Your task to perform on an android device: turn off priority inbox in the gmail app Image 0: 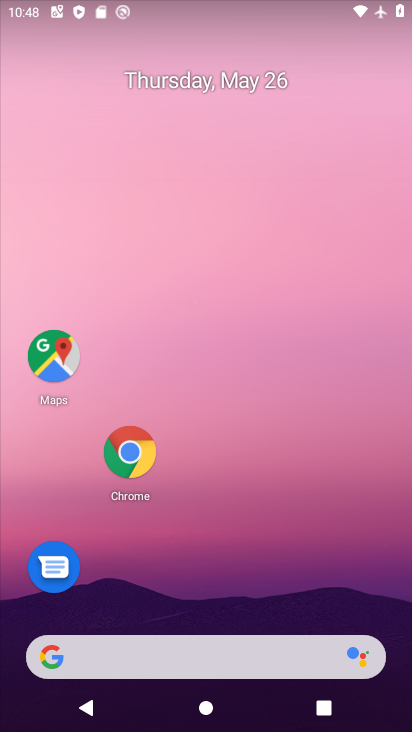
Step 0: drag from (142, 656) to (276, 99)
Your task to perform on an android device: turn off priority inbox in the gmail app Image 1: 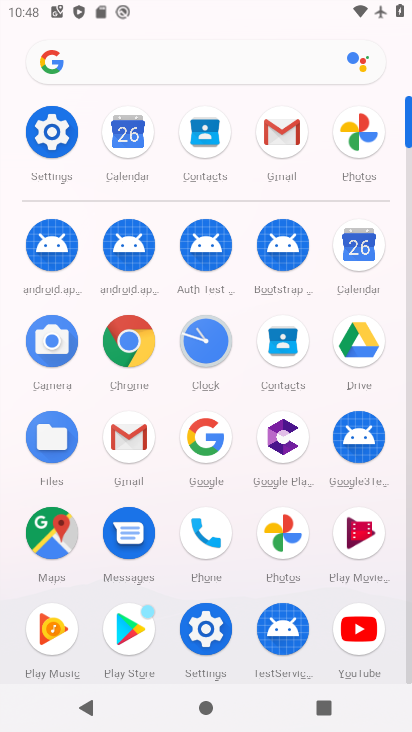
Step 1: click (124, 440)
Your task to perform on an android device: turn off priority inbox in the gmail app Image 2: 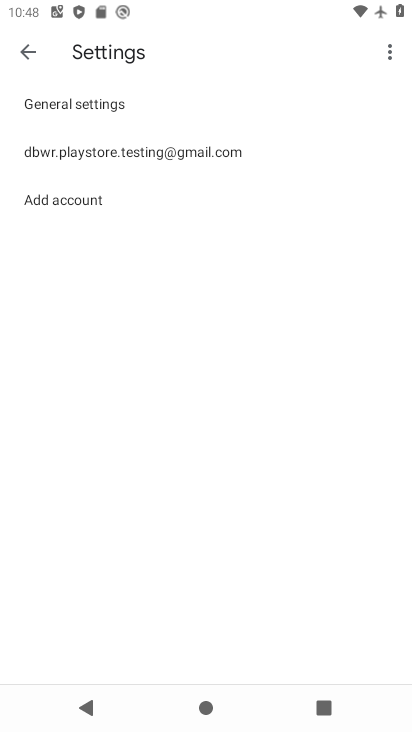
Step 2: click (207, 152)
Your task to perform on an android device: turn off priority inbox in the gmail app Image 3: 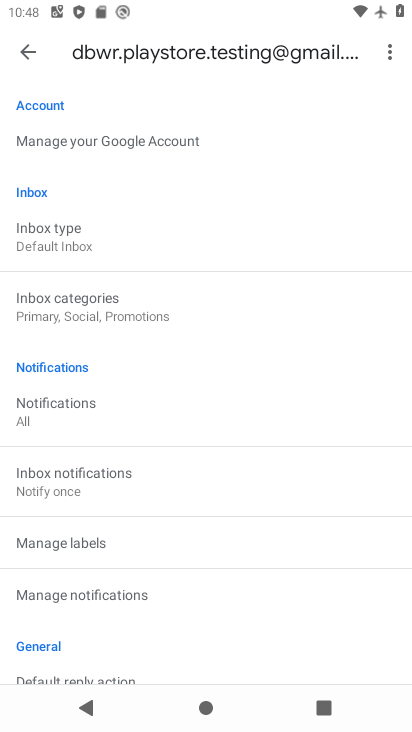
Step 3: click (56, 233)
Your task to perform on an android device: turn off priority inbox in the gmail app Image 4: 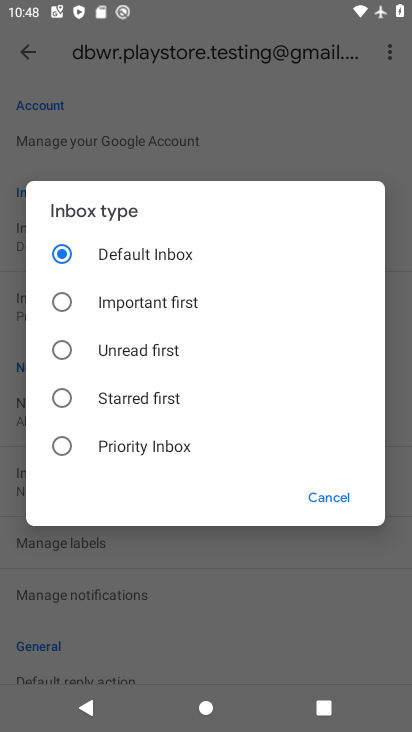
Step 4: click (57, 446)
Your task to perform on an android device: turn off priority inbox in the gmail app Image 5: 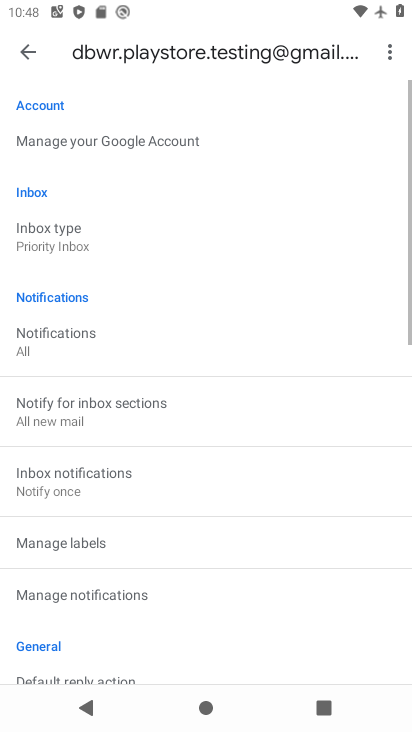
Step 5: click (72, 233)
Your task to perform on an android device: turn off priority inbox in the gmail app Image 6: 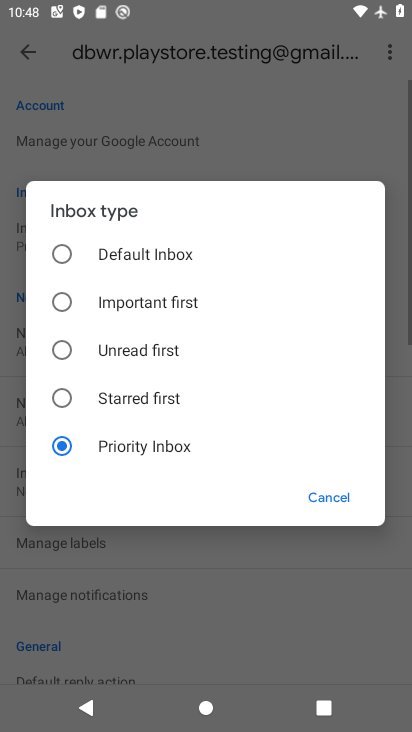
Step 6: click (57, 244)
Your task to perform on an android device: turn off priority inbox in the gmail app Image 7: 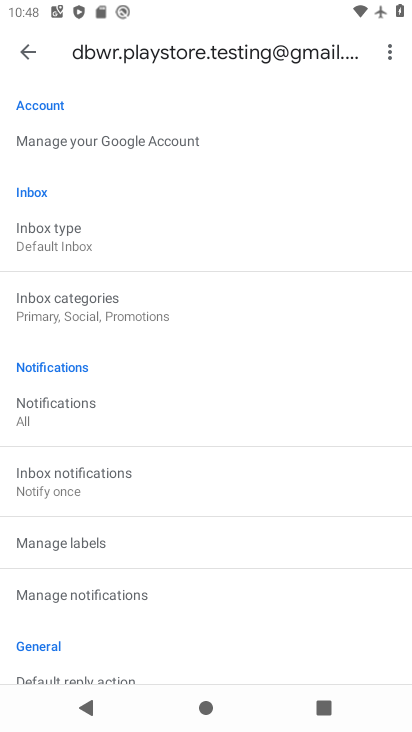
Step 7: task complete